Your task to perform on an android device: Open Google Maps Image 0: 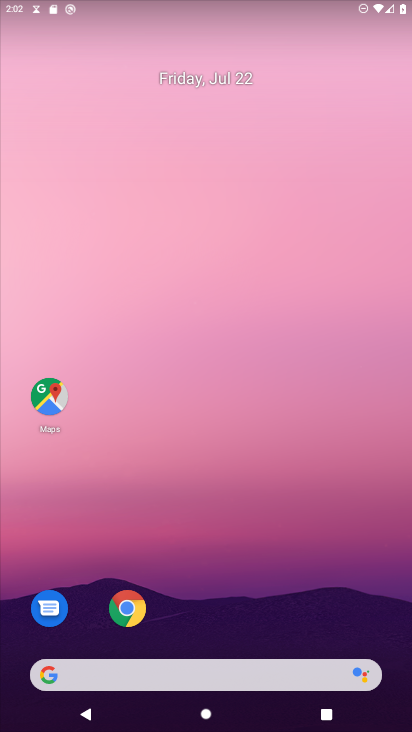
Step 0: click (47, 386)
Your task to perform on an android device: Open Google Maps Image 1: 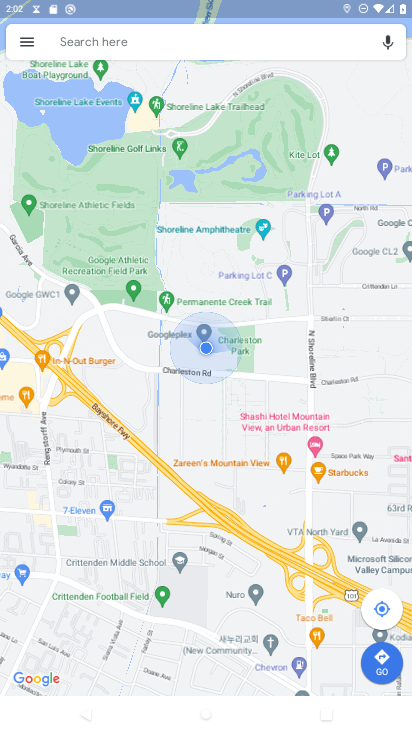
Step 1: task complete